Your task to perform on an android device: check out phone information Image 0: 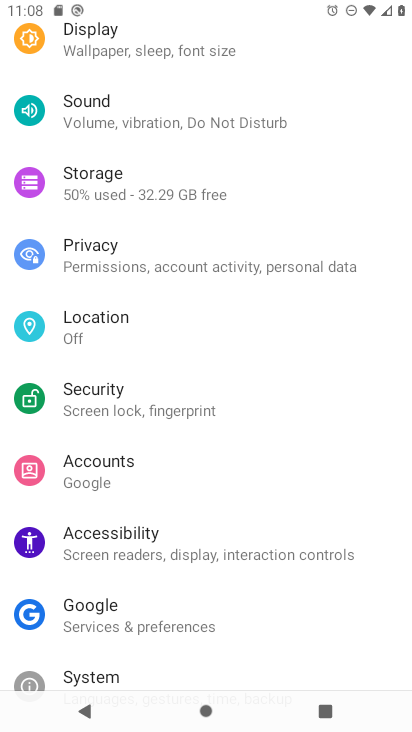
Step 0: press home button
Your task to perform on an android device: check out phone information Image 1: 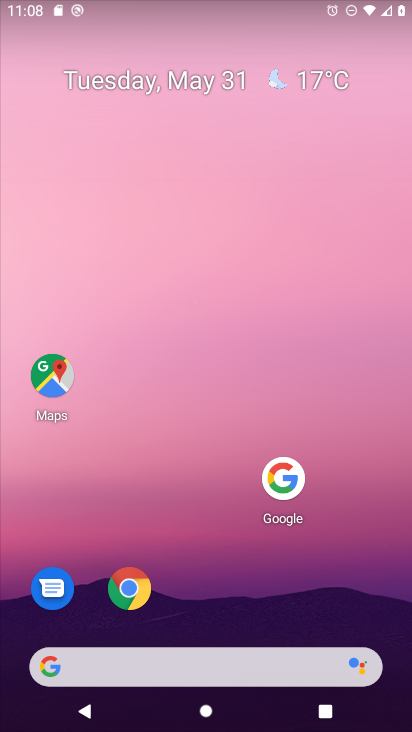
Step 1: drag from (218, 586) to (316, 18)
Your task to perform on an android device: check out phone information Image 2: 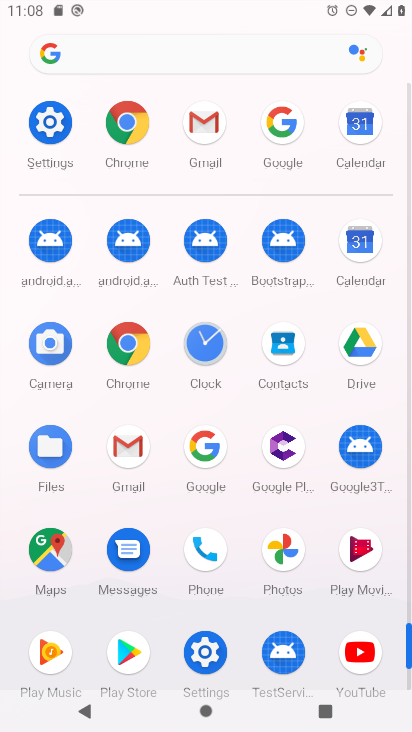
Step 2: click (41, 114)
Your task to perform on an android device: check out phone information Image 3: 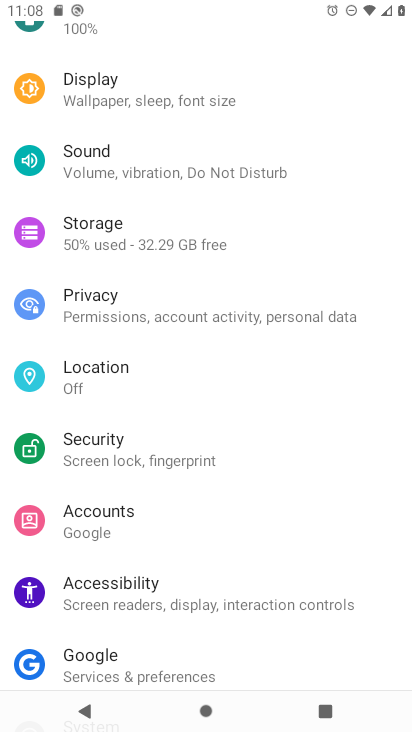
Step 3: drag from (225, 643) to (299, 8)
Your task to perform on an android device: check out phone information Image 4: 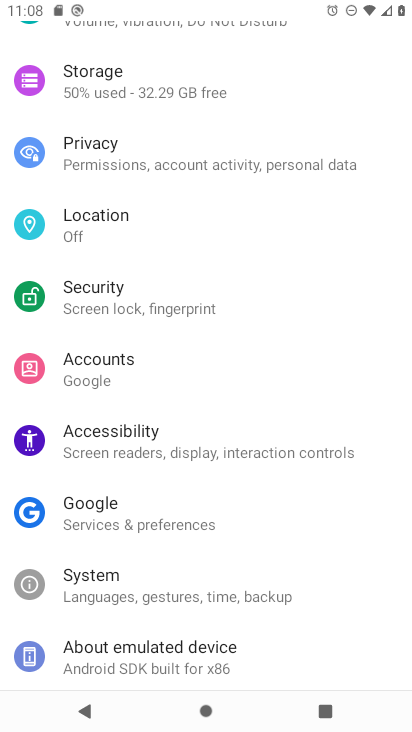
Step 4: click (108, 654)
Your task to perform on an android device: check out phone information Image 5: 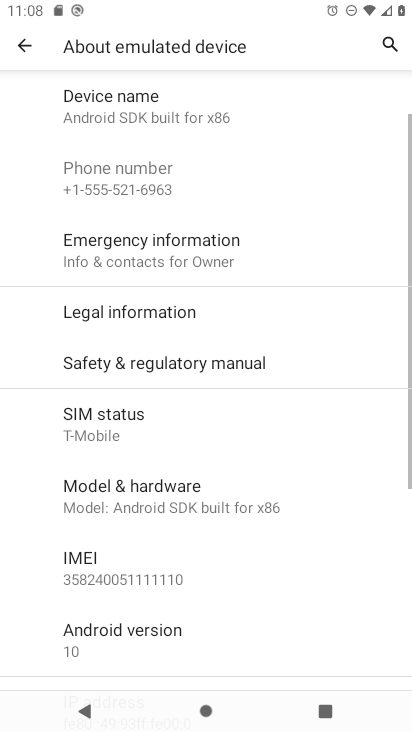
Step 5: task complete